Your task to perform on an android device: refresh tabs in the chrome app Image 0: 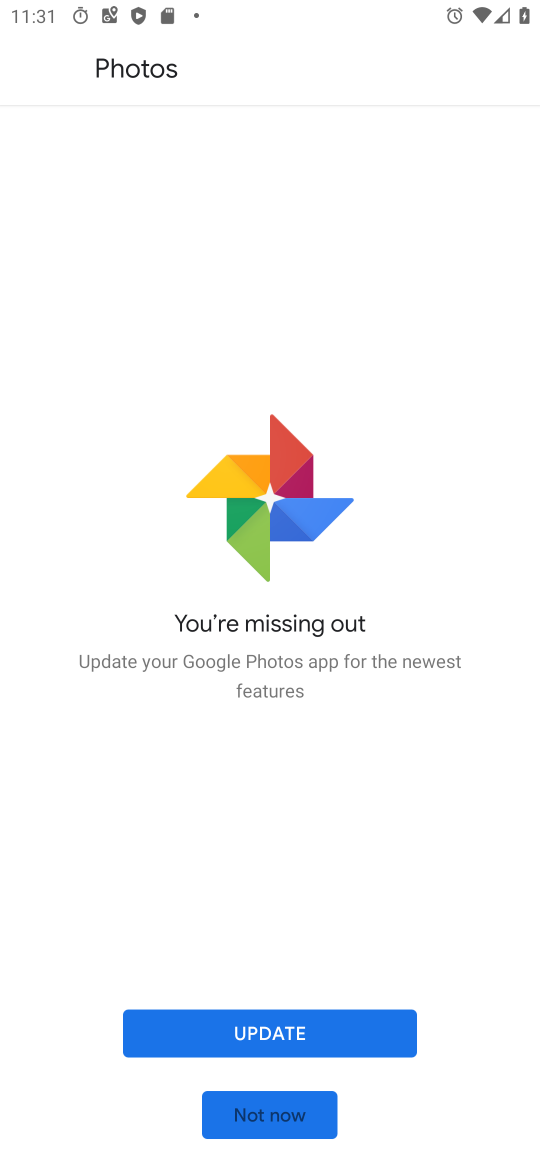
Step 0: press back button
Your task to perform on an android device: refresh tabs in the chrome app Image 1: 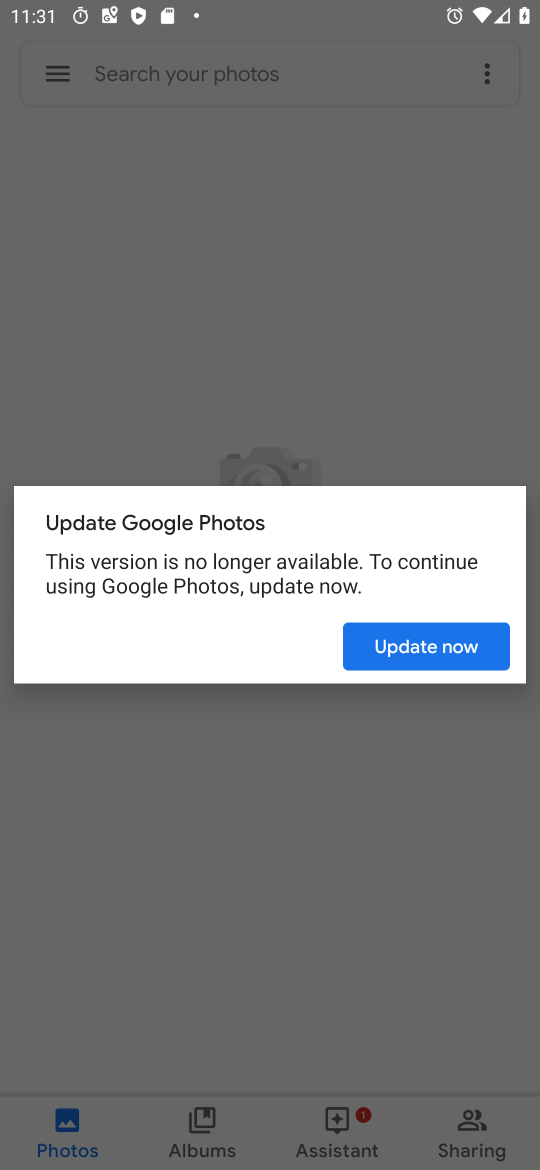
Step 1: press home button
Your task to perform on an android device: refresh tabs in the chrome app Image 2: 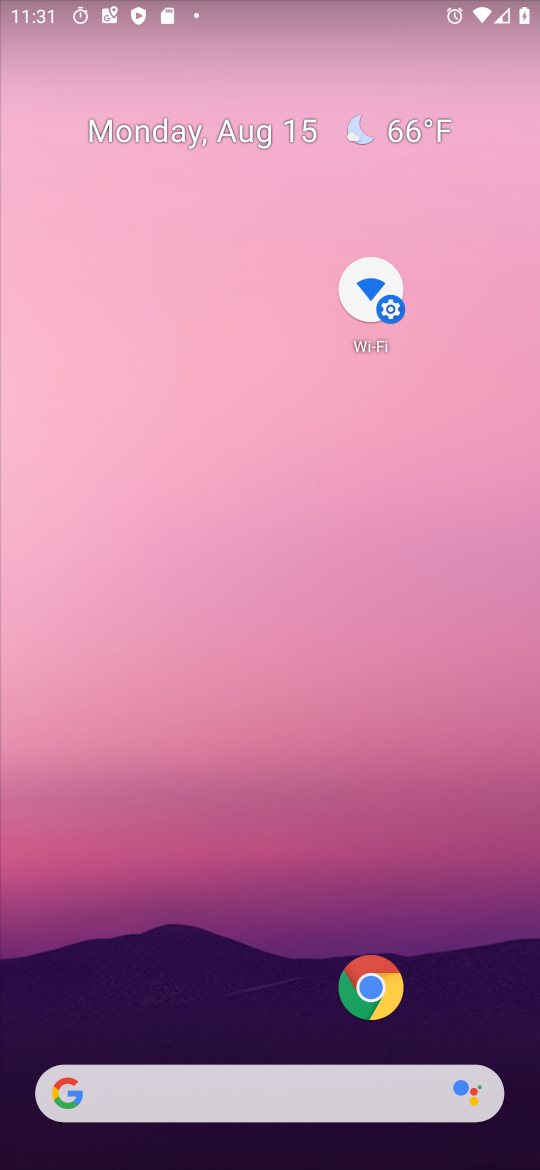
Step 2: drag from (292, 1062) to (198, 13)
Your task to perform on an android device: refresh tabs in the chrome app Image 3: 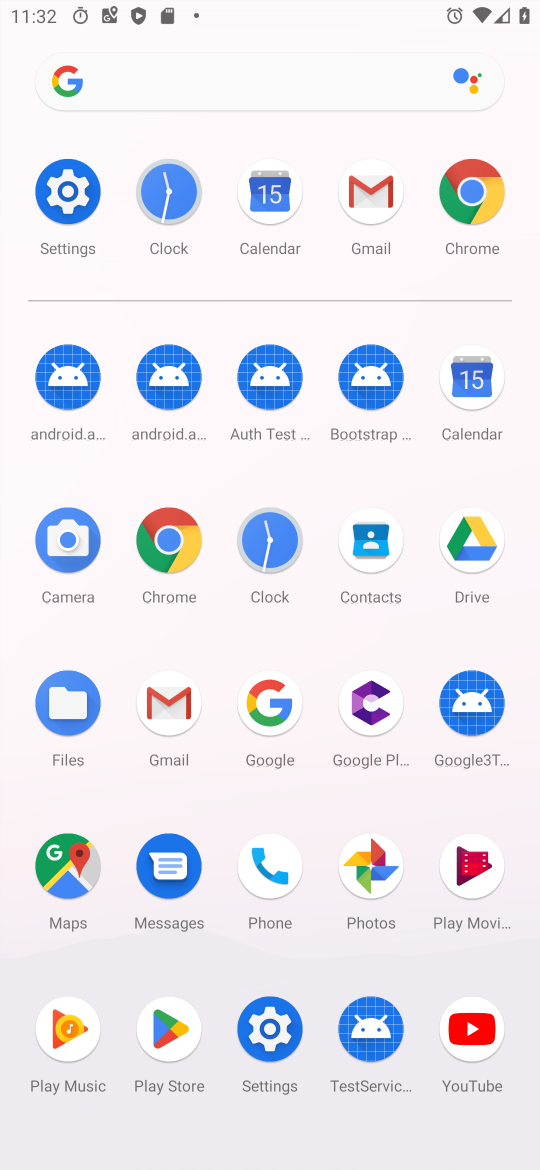
Step 3: click (176, 539)
Your task to perform on an android device: refresh tabs in the chrome app Image 4: 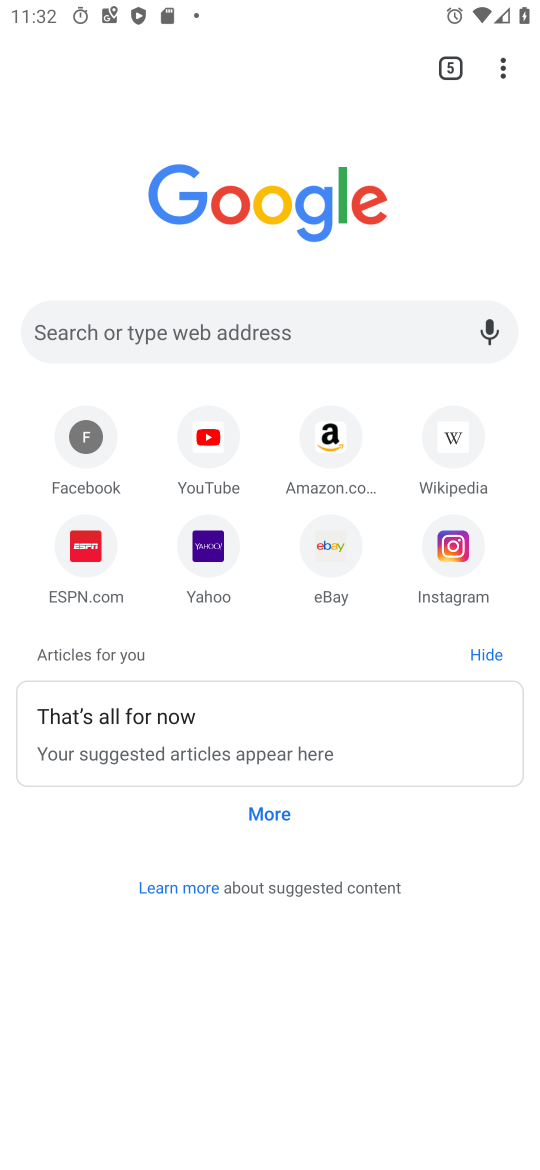
Step 4: click (498, 73)
Your task to perform on an android device: refresh tabs in the chrome app Image 5: 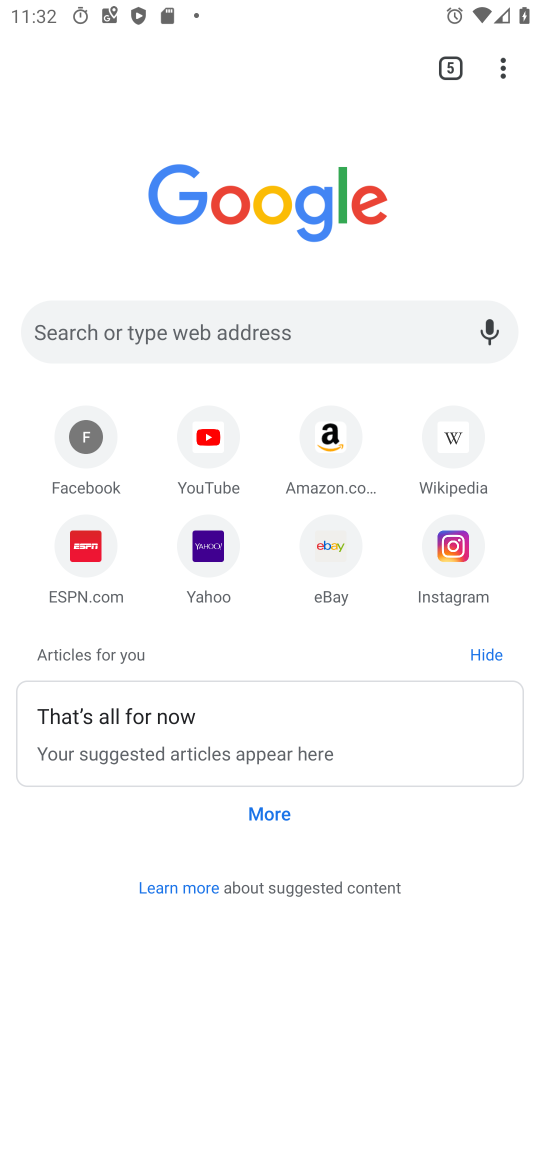
Step 5: click (511, 72)
Your task to perform on an android device: refresh tabs in the chrome app Image 6: 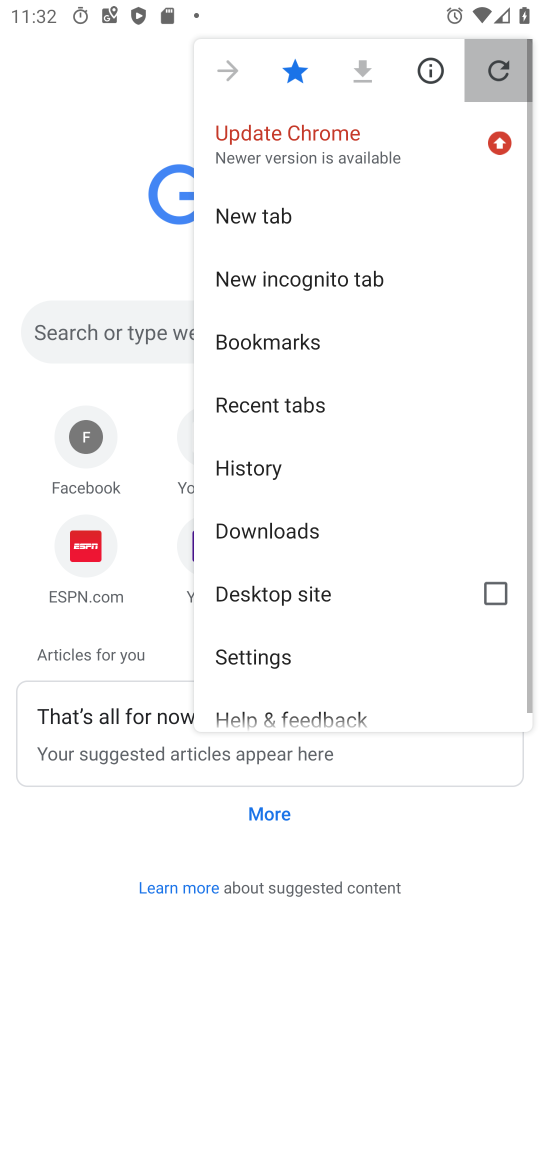
Step 6: click (496, 76)
Your task to perform on an android device: refresh tabs in the chrome app Image 7: 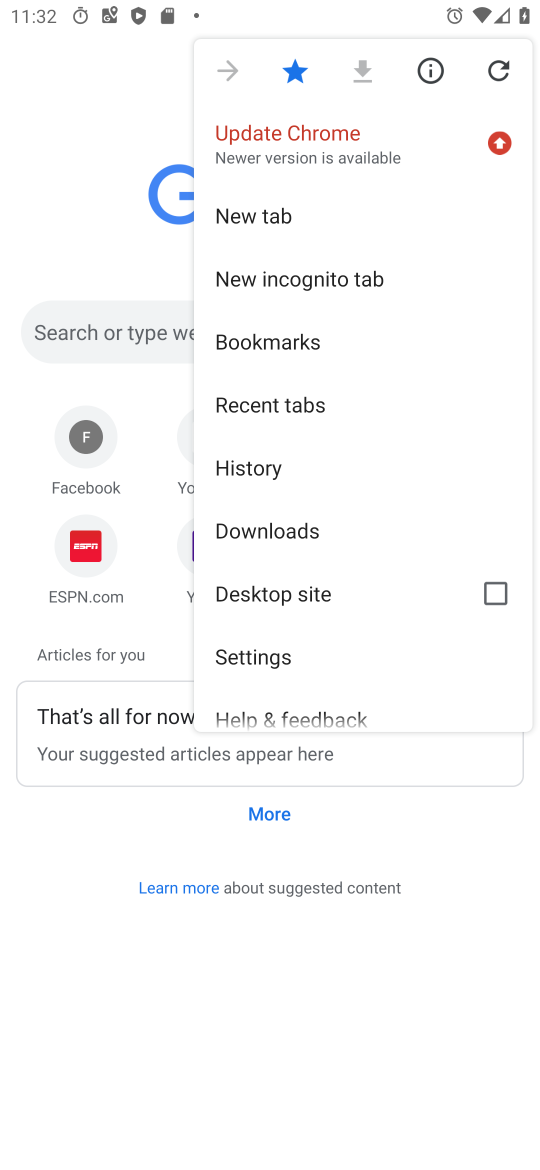
Step 7: click (491, 67)
Your task to perform on an android device: refresh tabs in the chrome app Image 8: 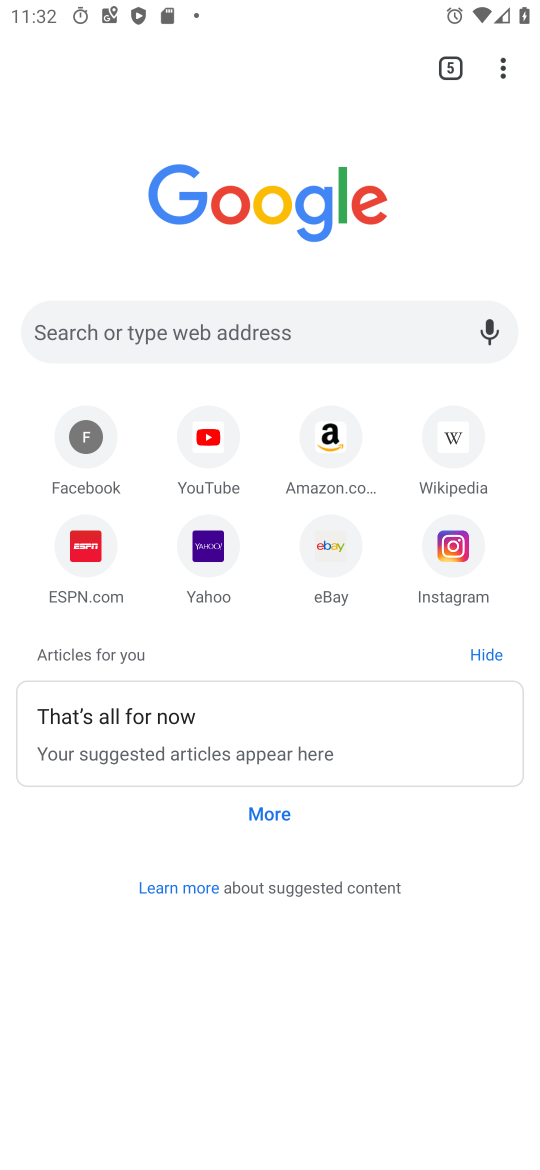
Step 8: task complete